Your task to perform on an android device: turn off wifi Image 0: 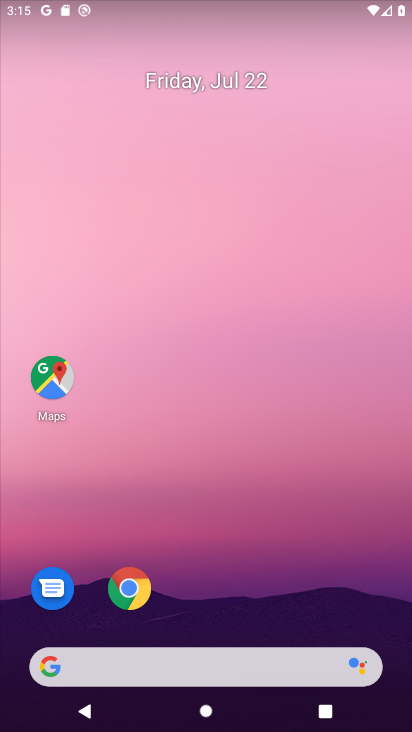
Step 0: drag from (142, 2) to (149, 100)
Your task to perform on an android device: turn off wifi Image 1: 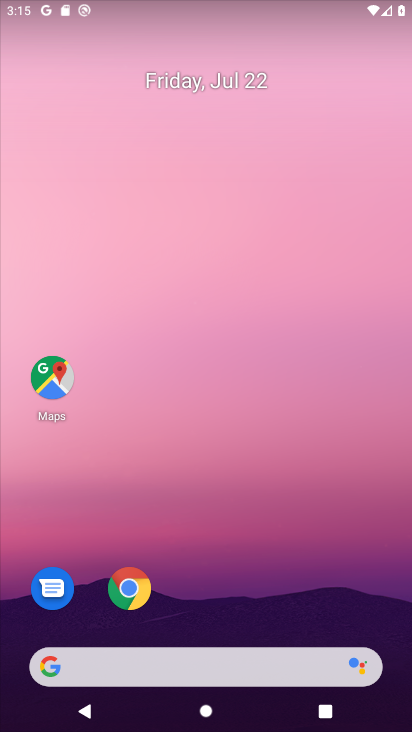
Step 1: drag from (116, 0) to (177, 288)
Your task to perform on an android device: turn off wifi Image 2: 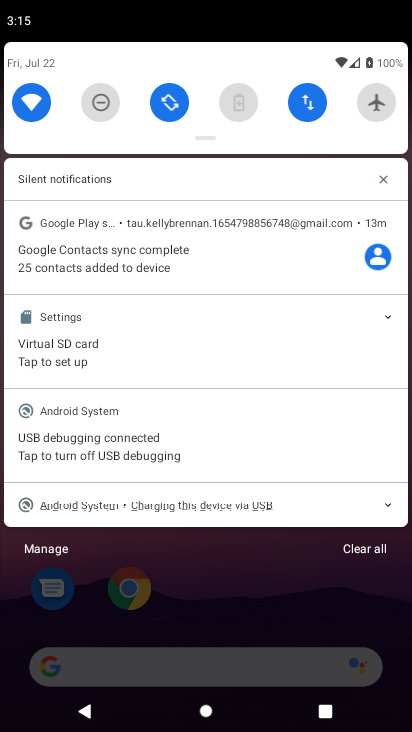
Step 2: click (33, 101)
Your task to perform on an android device: turn off wifi Image 3: 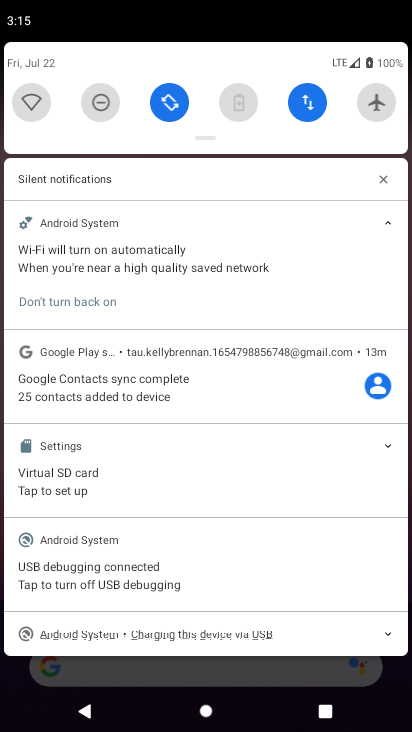
Step 3: task complete